Your task to perform on an android device: toggle javascript in the chrome app Image 0: 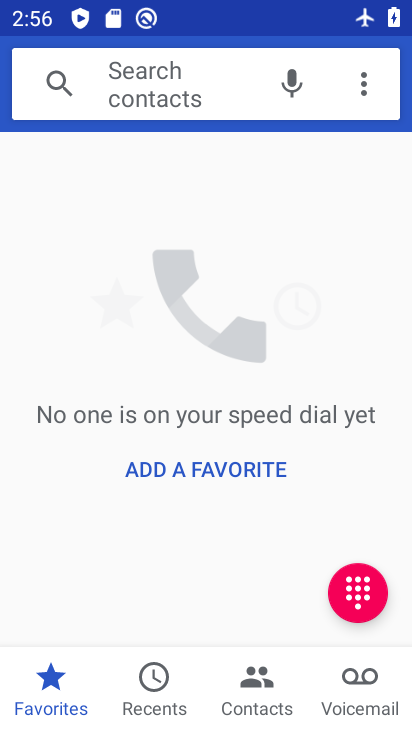
Step 0: press home button
Your task to perform on an android device: toggle javascript in the chrome app Image 1: 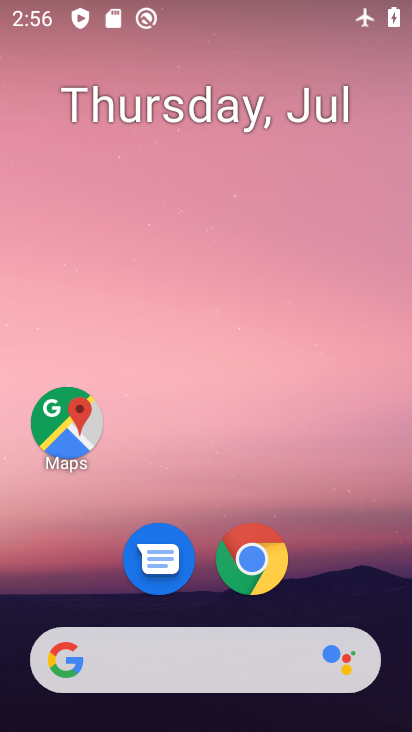
Step 1: drag from (211, 637) to (224, 106)
Your task to perform on an android device: toggle javascript in the chrome app Image 2: 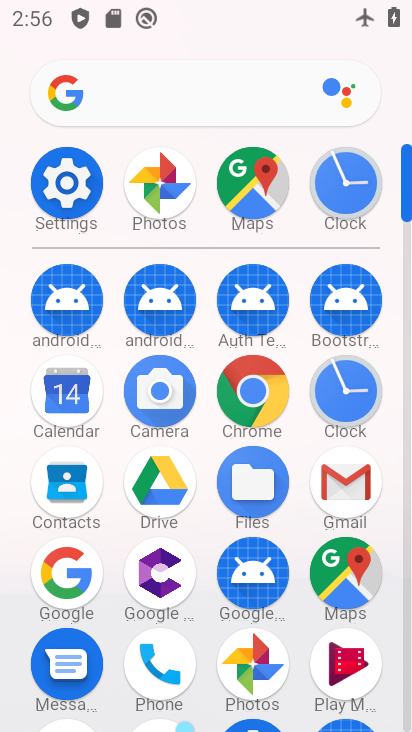
Step 2: click (251, 415)
Your task to perform on an android device: toggle javascript in the chrome app Image 3: 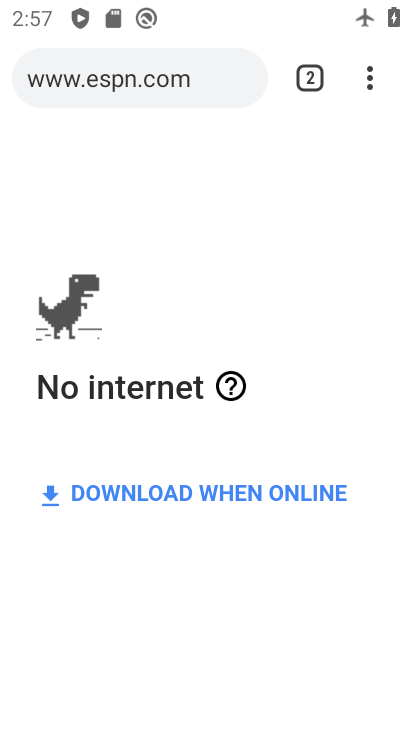
Step 3: click (377, 80)
Your task to perform on an android device: toggle javascript in the chrome app Image 4: 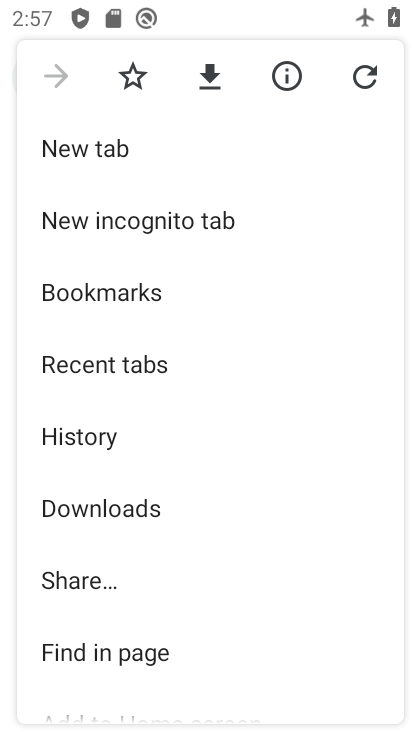
Step 4: drag from (203, 551) to (259, 209)
Your task to perform on an android device: toggle javascript in the chrome app Image 5: 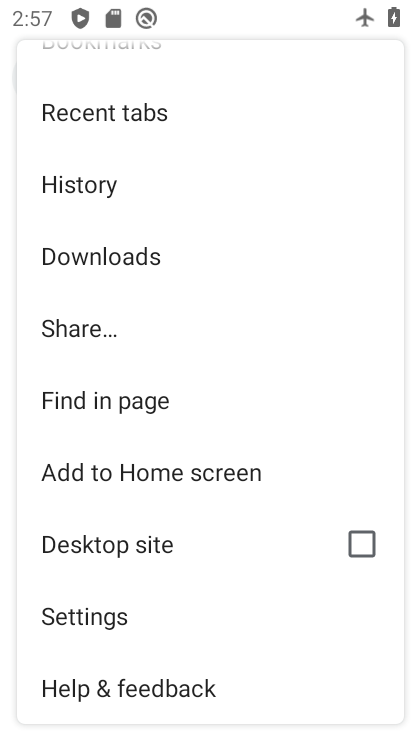
Step 5: click (128, 617)
Your task to perform on an android device: toggle javascript in the chrome app Image 6: 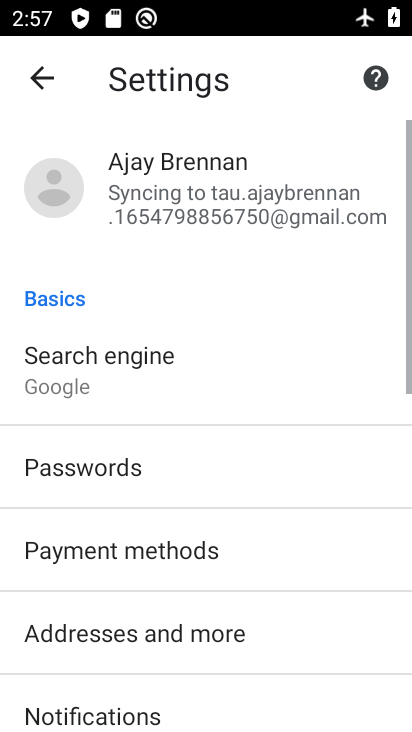
Step 6: drag from (128, 613) to (146, 232)
Your task to perform on an android device: toggle javascript in the chrome app Image 7: 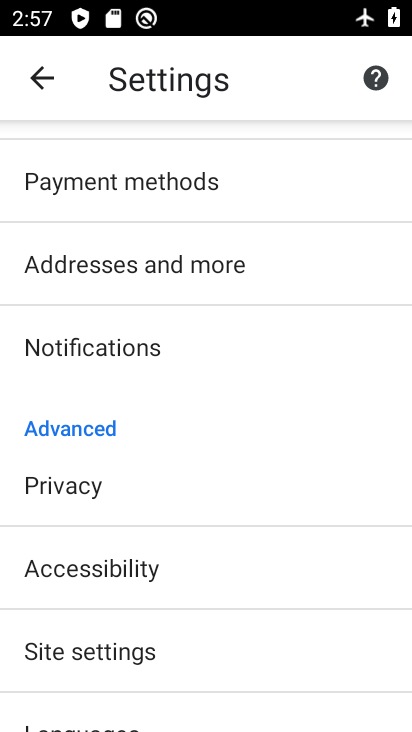
Step 7: drag from (147, 632) to (175, 360)
Your task to perform on an android device: toggle javascript in the chrome app Image 8: 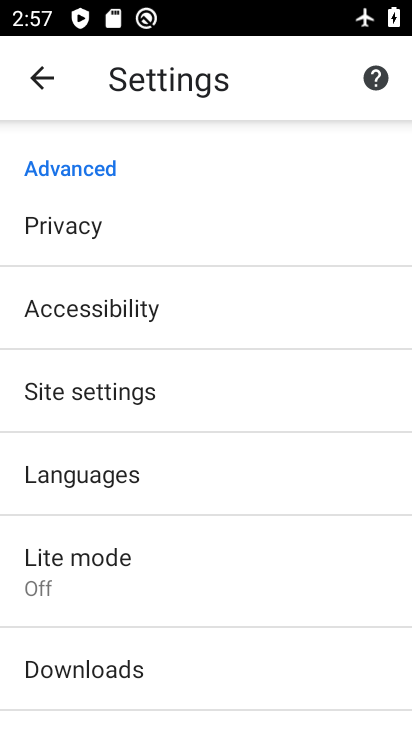
Step 8: click (107, 398)
Your task to perform on an android device: toggle javascript in the chrome app Image 9: 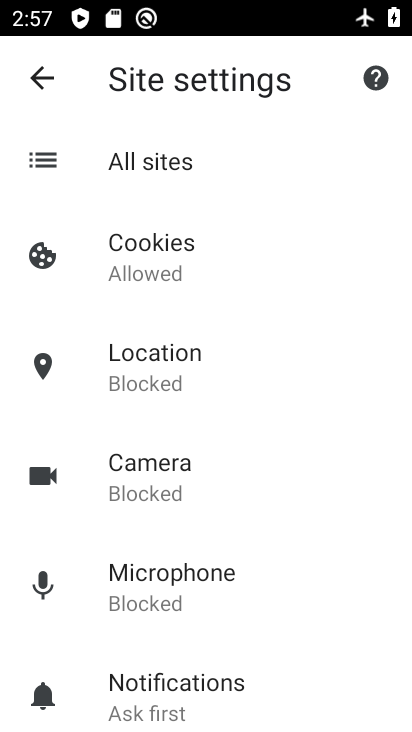
Step 9: drag from (160, 558) to (179, 351)
Your task to perform on an android device: toggle javascript in the chrome app Image 10: 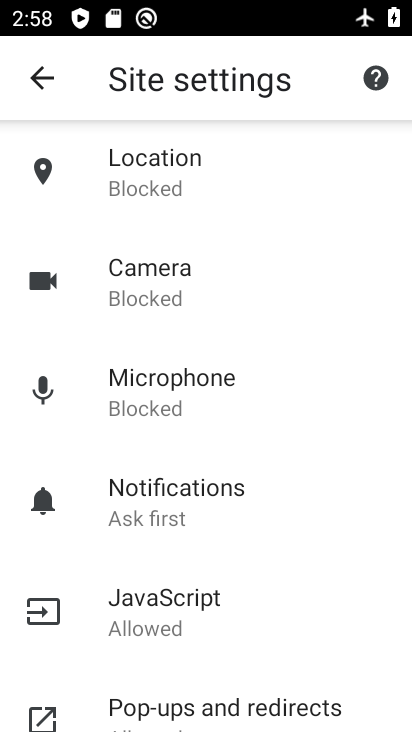
Step 10: click (186, 607)
Your task to perform on an android device: toggle javascript in the chrome app Image 11: 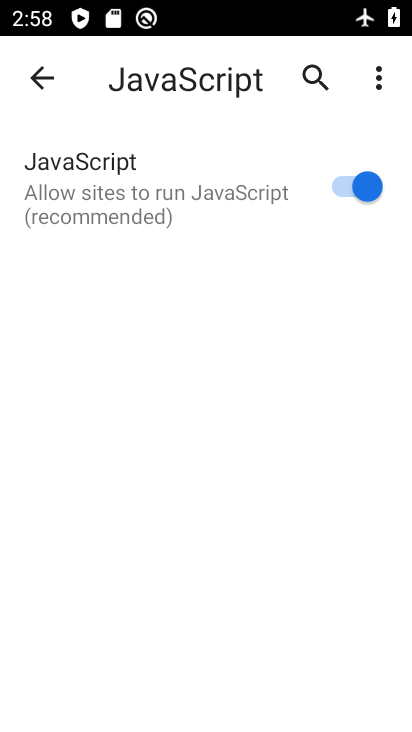
Step 11: click (331, 196)
Your task to perform on an android device: toggle javascript in the chrome app Image 12: 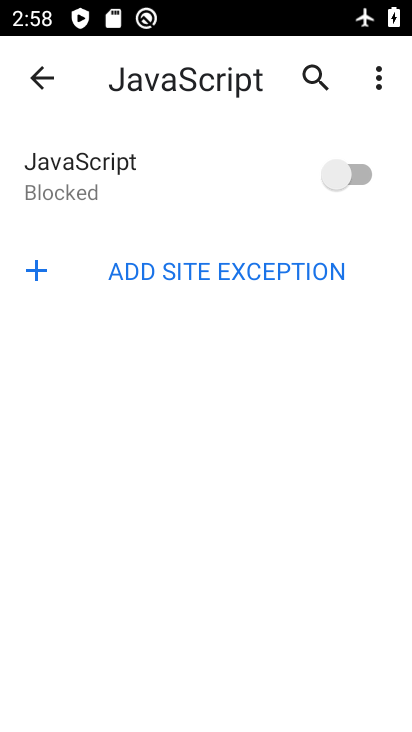
Step 12: task complete